Your task to perform on an android device: toggle sleep mode Image 0: 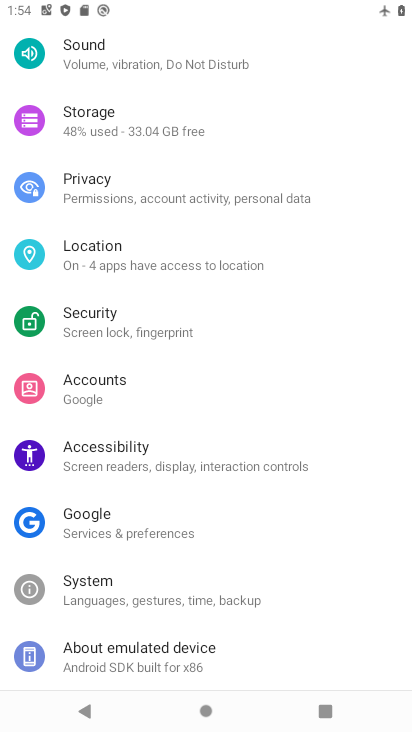
Step 0: drag from (141, 228) to (198, 670)
Your task to perform on an android device: toggle sleep mode Image 1: 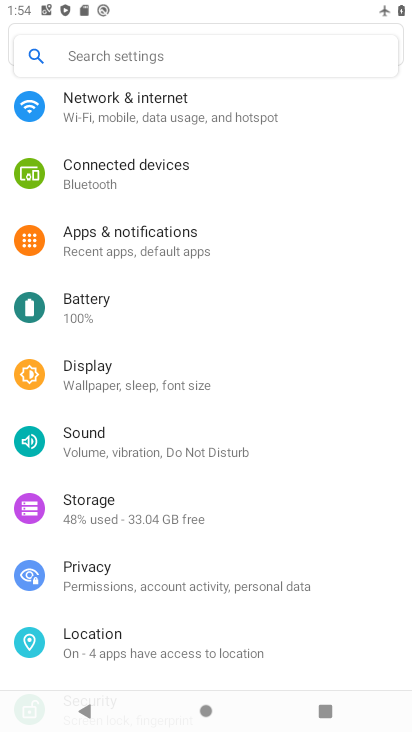
Step 1: click (72, 381)
Your task to perform on an android device: toggle sleep mode Image 2: 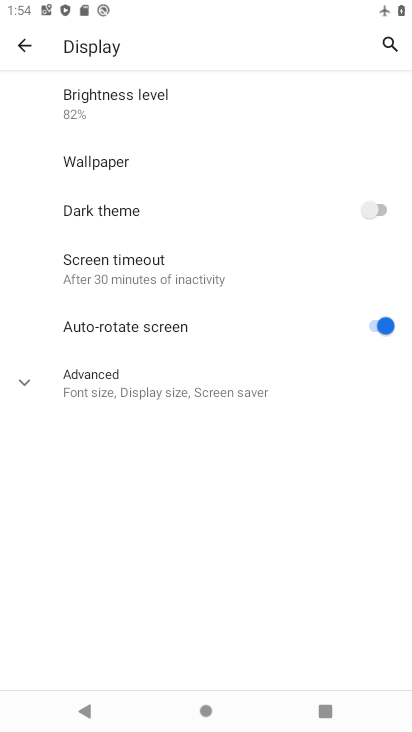
Step 2: click (129, 267)
Your task to perform on an android device: toggle sleep mode Image 3: 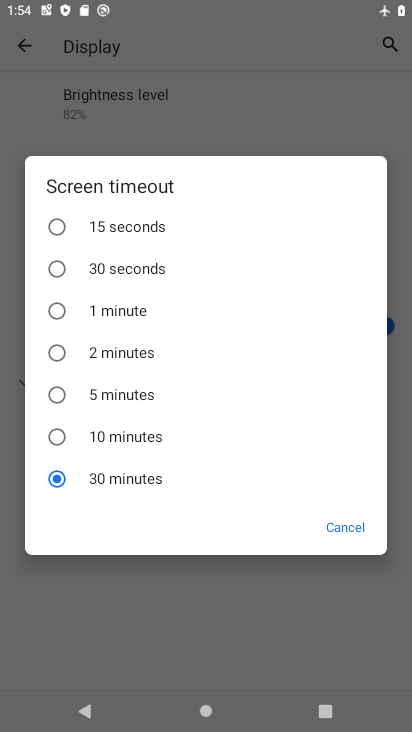
Step 3: click (111, 347)
Your task to perform on an android device: toggle sleep mode Image 4: 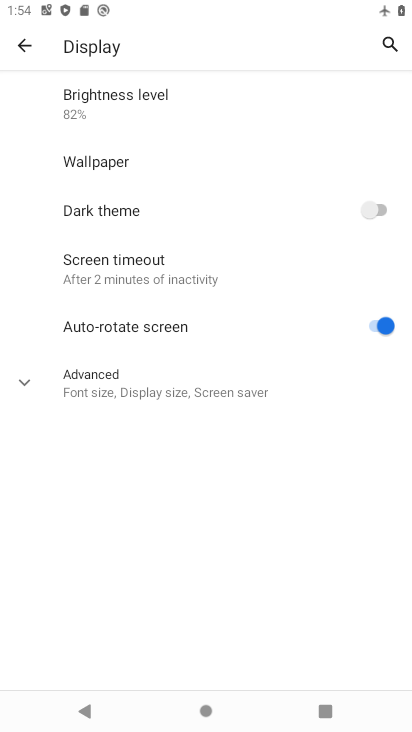
Step 4: task complete